Your task to perform on an android device: Search for seafood restaurants on Google Maps Image 0: 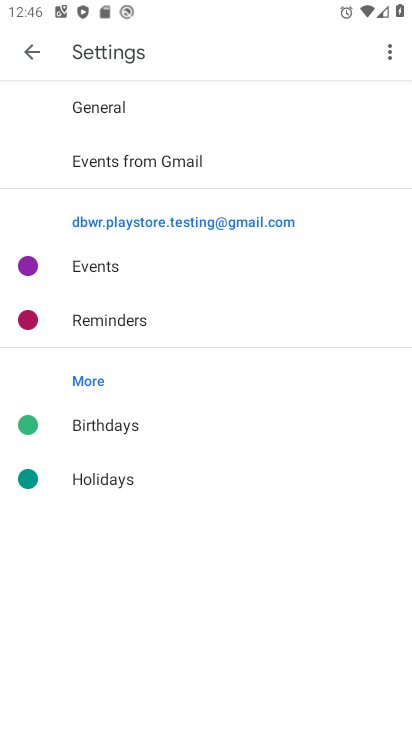
Step 0: press back button
Your task to perform on an android device: Search for seafood restaurants on Google Maps Image 1: 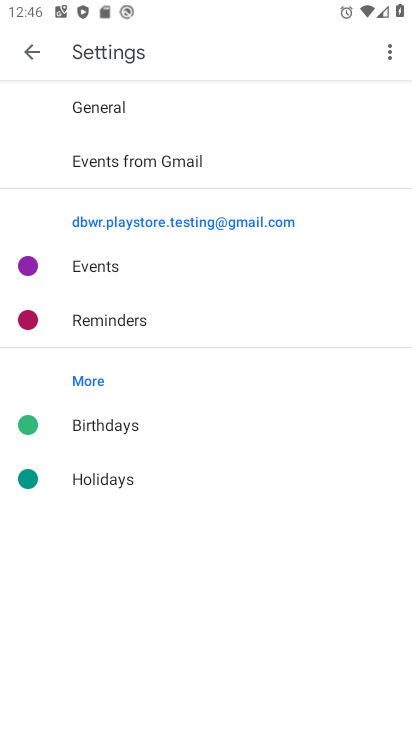
Step 1: press home button
Your task to perform on an android device: Search for seafood restaurants on Google Maps Image 2: 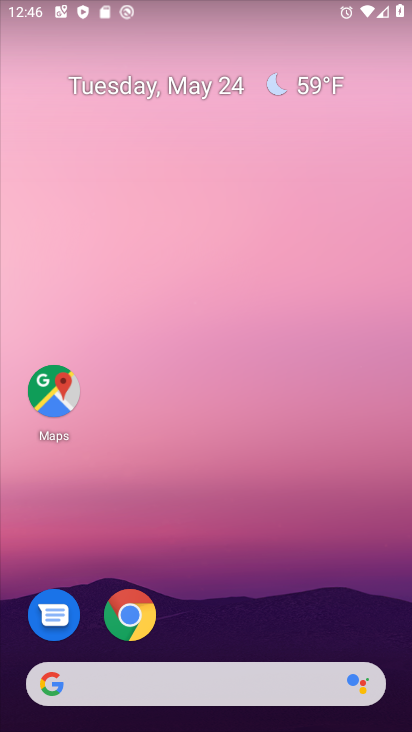
Step 2: drag from (209, 600) to (211, 35)
Your task to perform on an android device: Search for seafood restaurants on Google Maps Image 3: 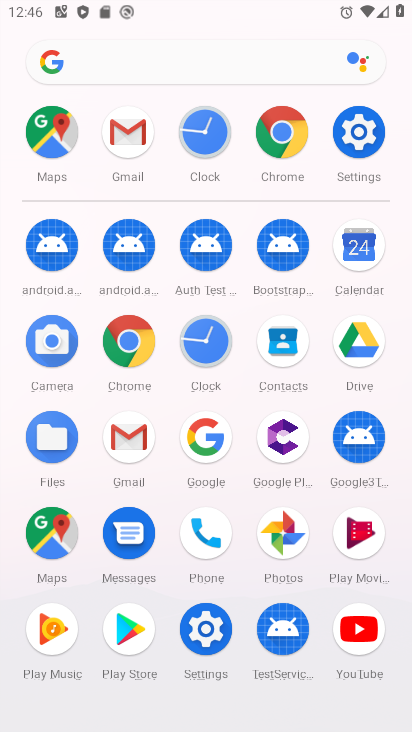
Step 3: click (42, 131)
Your task to perform on an android device: Search for seafood restaurants on Google Maps Image 4: 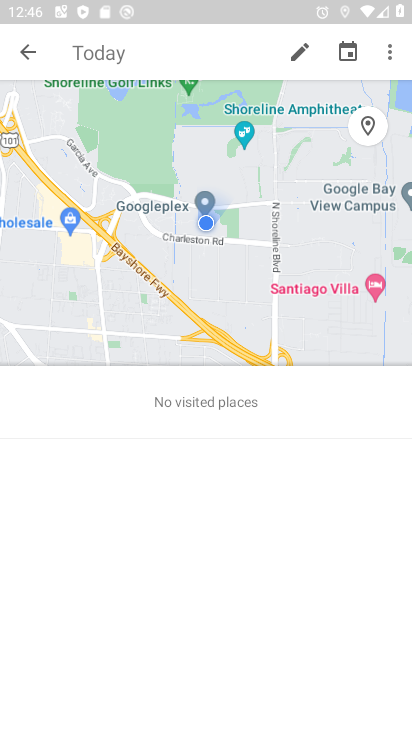
Step 4: click (11, 43)
Your task to perform on an android device: Search for seafood restaurants on Google Maps Image 5: 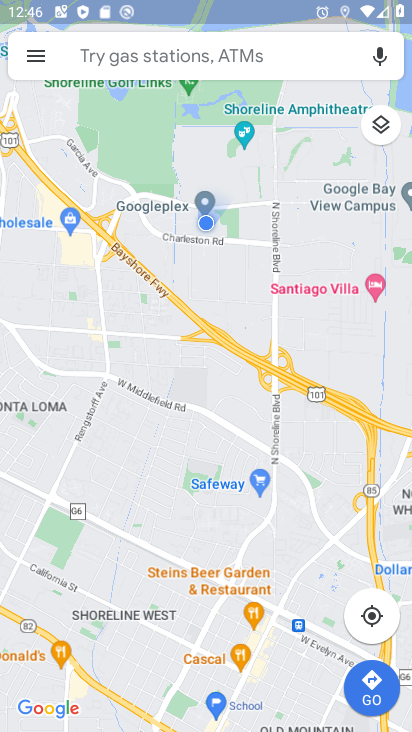
Step 5: click (271, 54)
Your task to perform on an android device: Search for seafood restaurants on Google Maps Image 6: 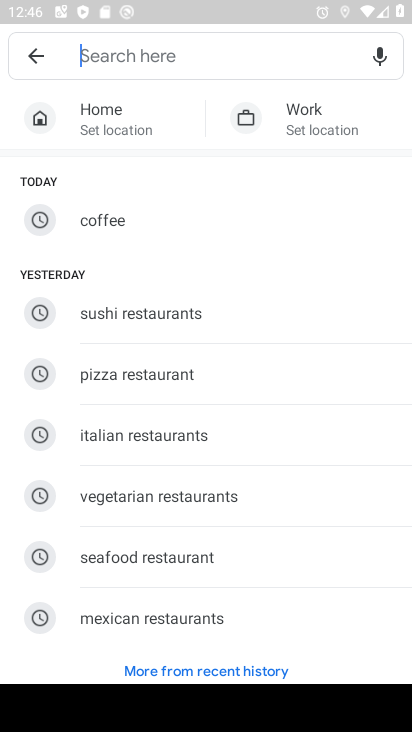
Step 6: click (152, 553)
Your task to perform on an android device: Search for seafood restaurants on Google Maps Image 7: 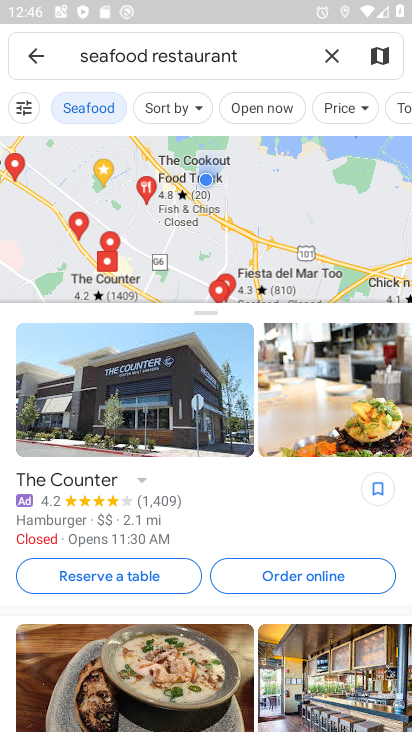
Step 7: task complete